Your task to perform on an android device: Search for pizza restaurants on Maps Image 0: 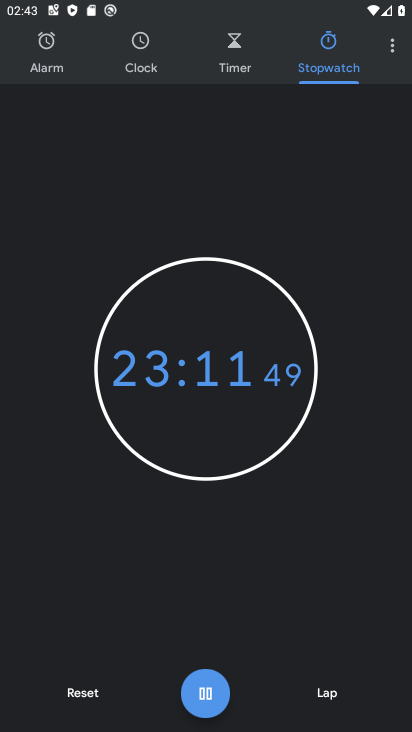
Step 0: press home button
Your task to perform on an android device: Search for pizza restaurants on Maps Image 1: 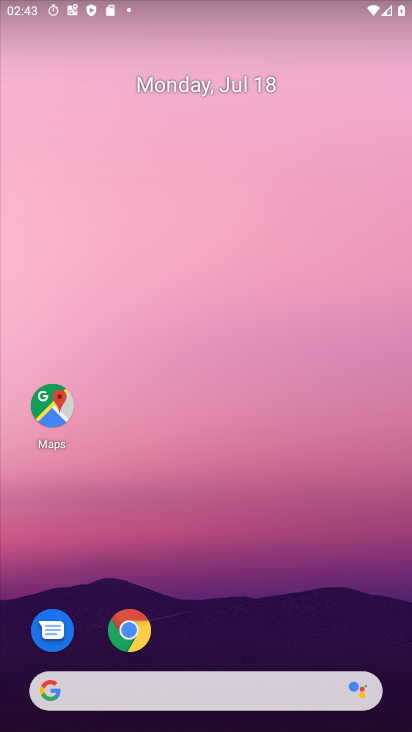
Step 1: click (52, 411)
Your task to perform on an android device: Search for pizza restaurants on Maps Image 2: 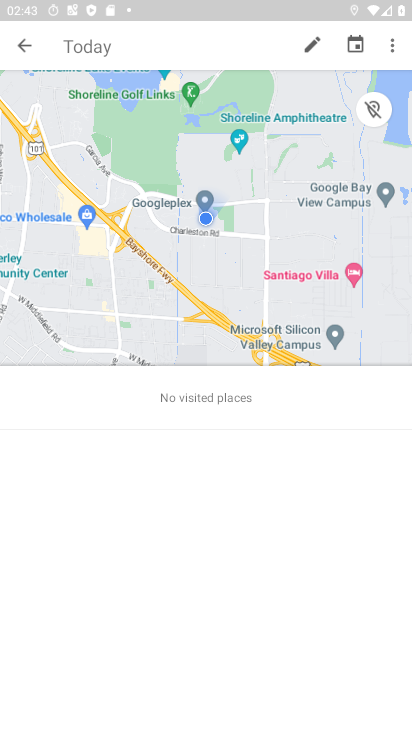
Step 2: click (32, 46)
Your task to perform on an android device: Search for pizza restaurants on Maps Image 3: 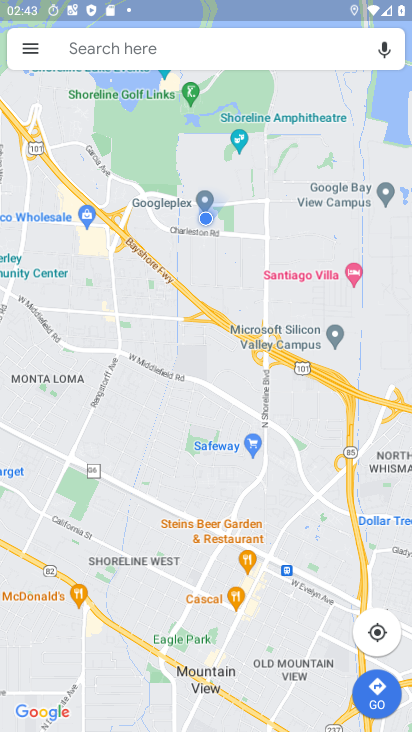
Step 3: click (139, 57)
Your task to perform on an android device: Search for pizza restaurants on Maps Image 4: 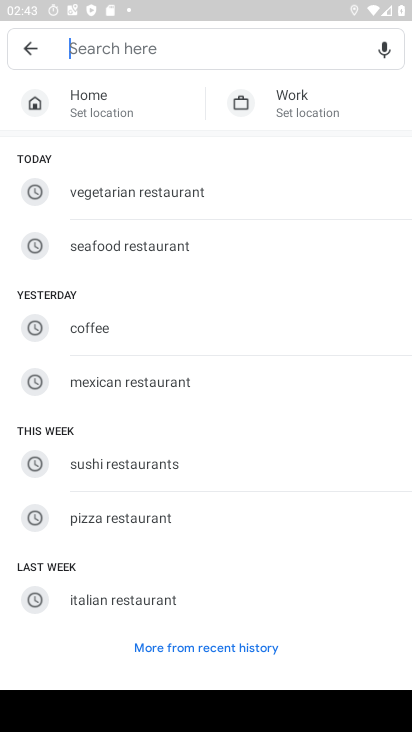
Step 4: type "pizz "
Your task to perform on an android device: Search for pizza restaurants on Maps Image 5: 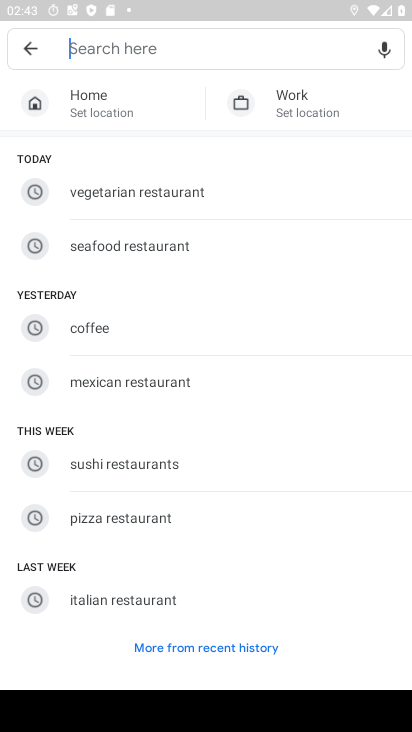
Step 5: click (246, 510)
Your task to perform on an android device: Search for pizza restaurants on Maps Image 6: 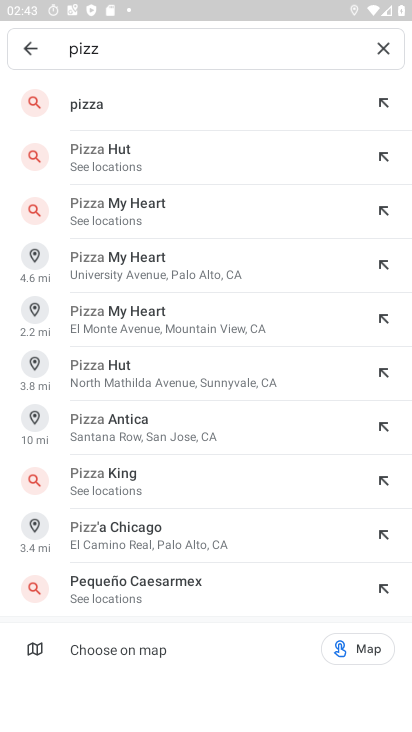
Step 6: click (139, 125)
Your task to perform on an android device: Search for pizza restaurants on Maps Image 7: 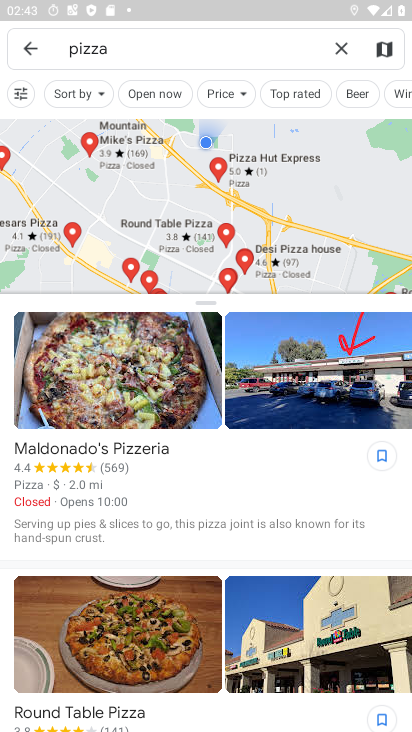
Step 7: task complete